Your task to perform on an android device: turn off wifi Image 0: 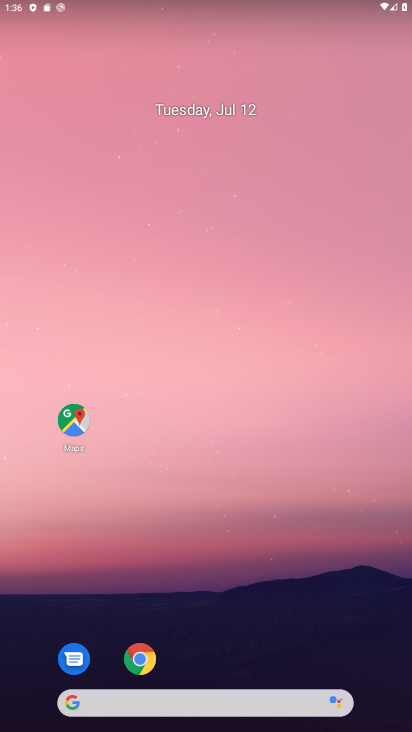
Step 0: drag from (189, 569) to (204, 120)
Your task to perform on an android device: turn off wifi Image 1: 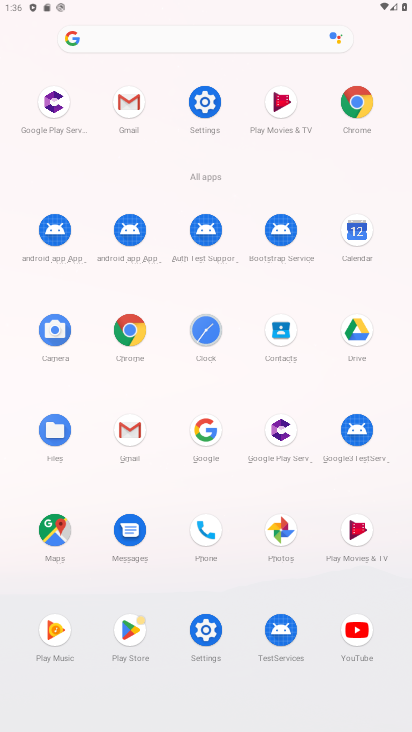
Step 1: click (199, 101)
Your task to perform on an android device: turn off wifi Image 2: 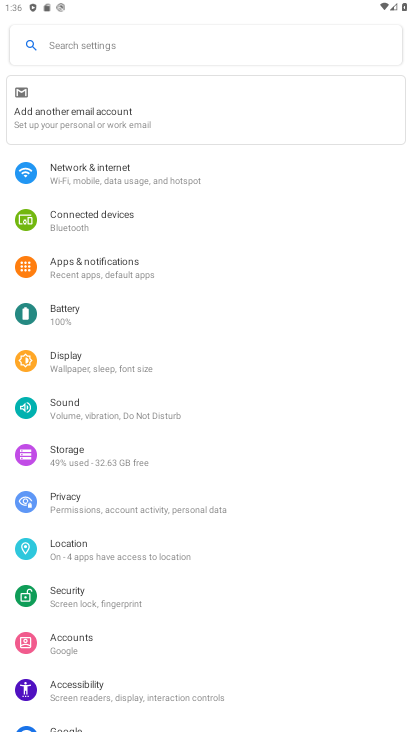
Step 2: click (118, 179)
Your task to perform on an android device: turn off wifi Image 3: 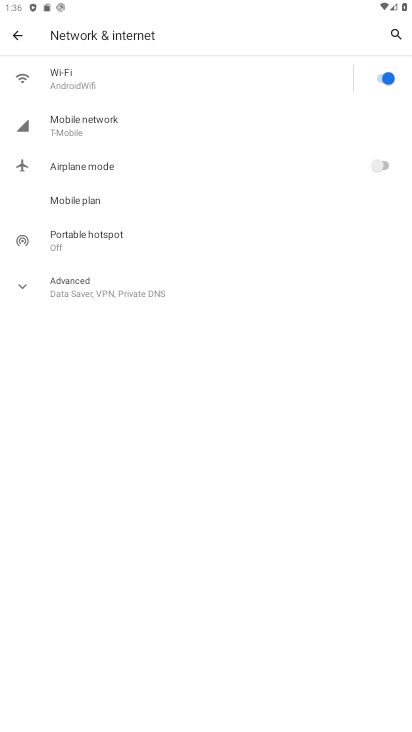
Step 3: click (387, 82)
Your task to perform on an android device: turn off wifi Image 4: 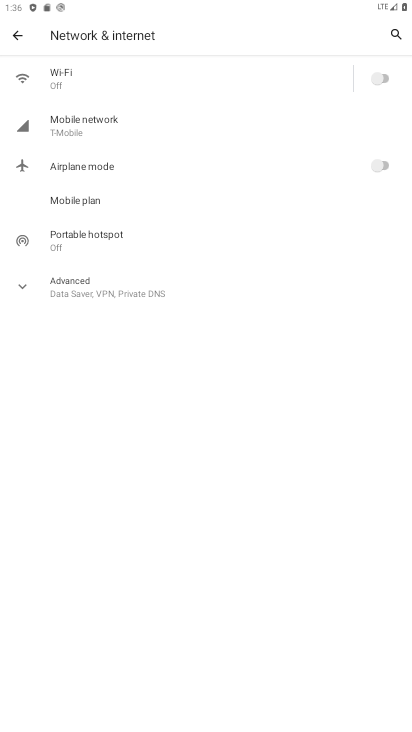
Step 4: task complete